Your task to perform on an android device: make emails show in primary in the gmail app Image 0: 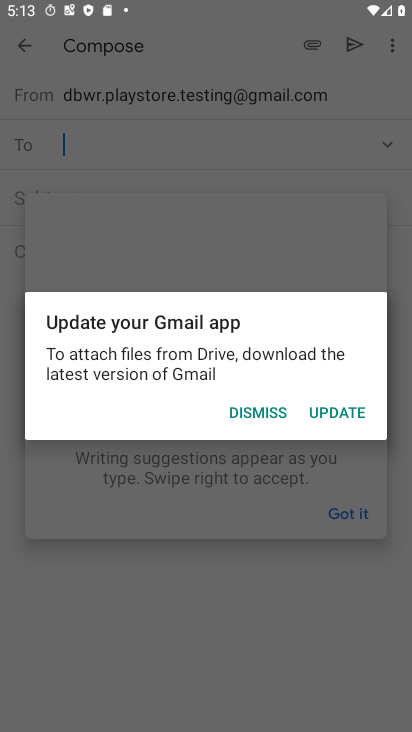
Step 0: press home button
Your task to perform on an android device: make emails show in primary in the gmail app Image 1: 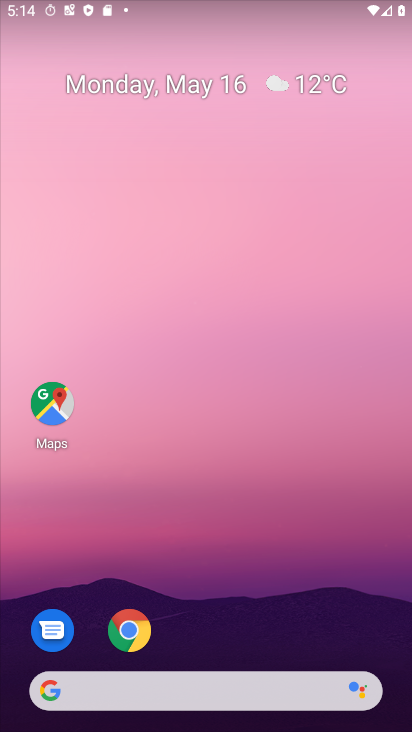
Step 1: drag from (291, 571) to (244, 61)
Your task to perform on an android device: make emails show in primary in the gmail app Image 2: 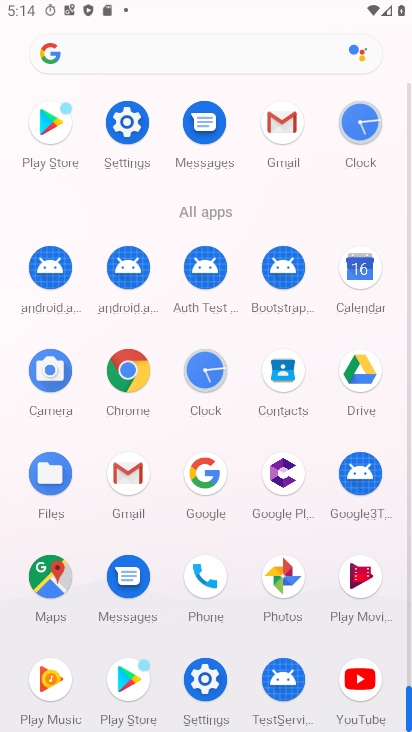
Step 2: click (280, 118)
Your task to perform on an android device: make emails show in primary in the gmail app Image 3: 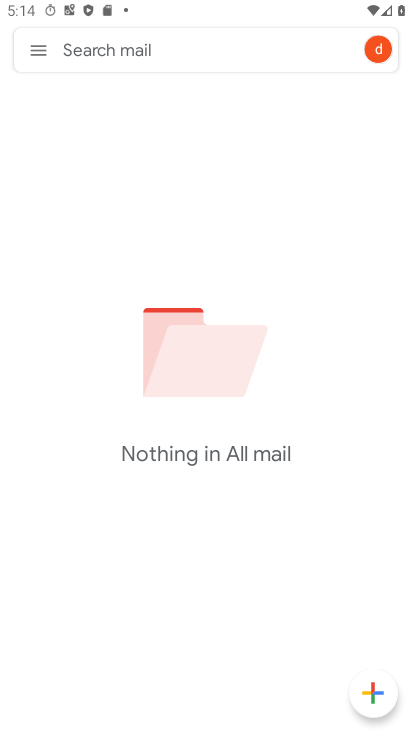
Step 3: click (33, 41)
Your task to perform on an android device: make emails show in primary in the gmail app Image 4: 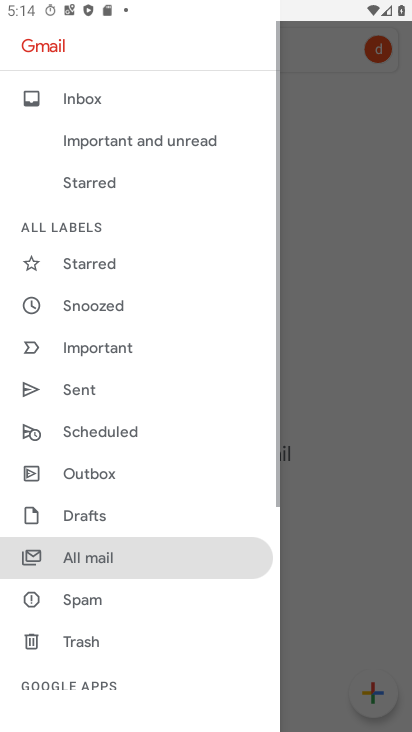
Step 4: drag from (202, 546) to (173, 575)
Your task to perform on an android device: make emails show in primary in the gmail app Image 5: 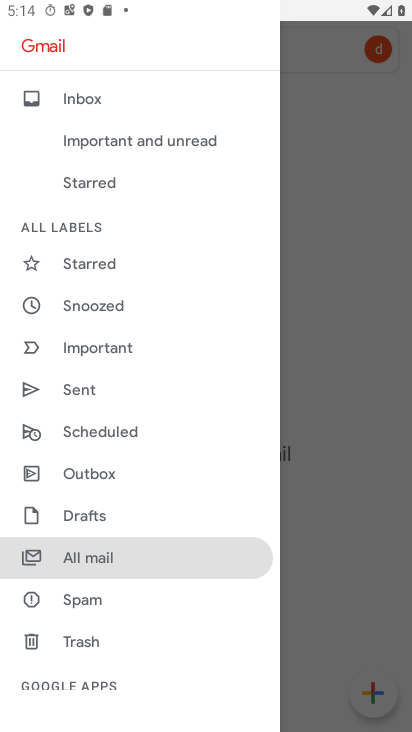
Step 5: drag from (122, 693) to (122, 176)
Your task to perform on an android device: make emails show in primary in the gmail app Image 6: 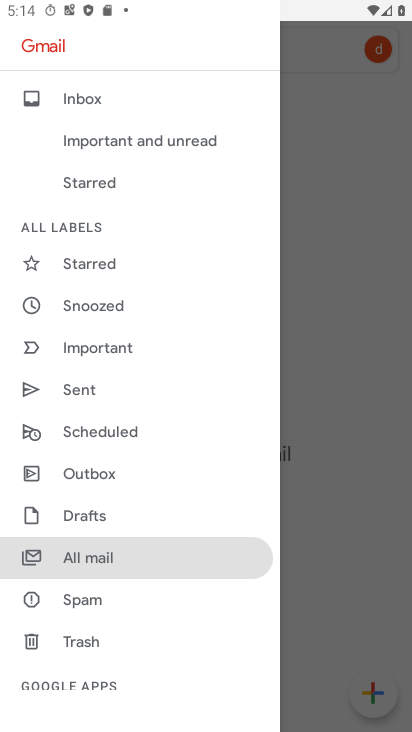
Step 6: drag from (88, 630) to (142, 140)
Your task to perform on an android device: make emails show in primary in the gmail app Image 7: 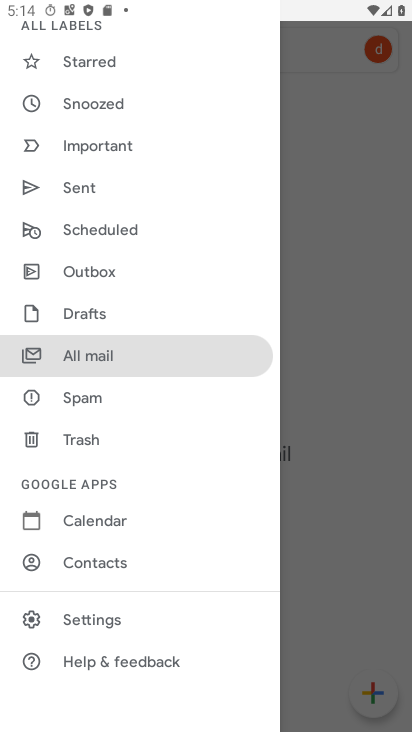
Step 7: click (76, 615)
Your task to perform on an android device: make emails show in primary in the gmail app Image 8: 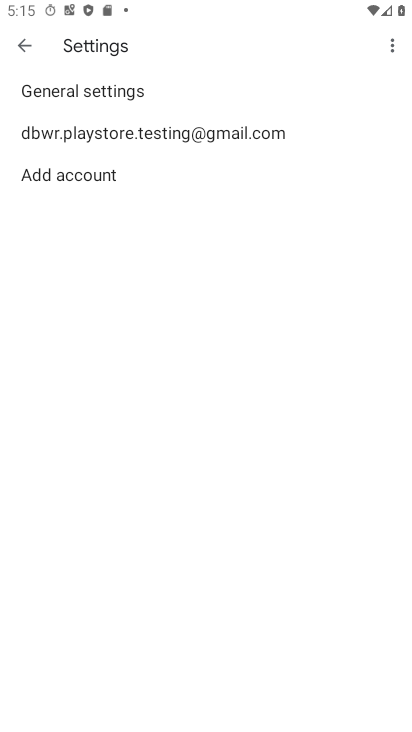
Step 8: click (103, 143)
Your task to perform on an android device: make emails show in primary in the gmail app Image 9: 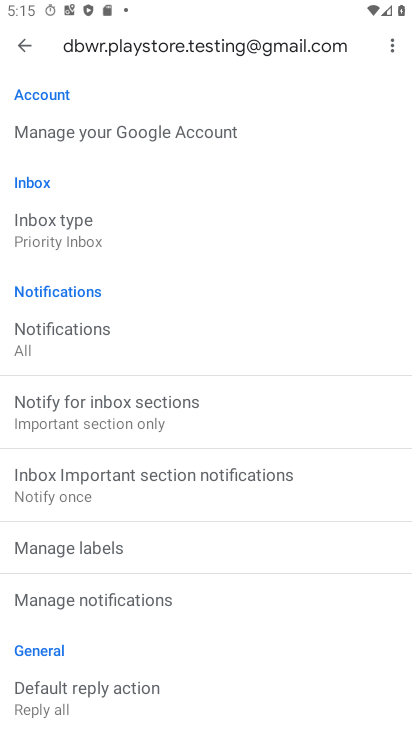
Step 9: click (91, 232)
Your task to perform on an android device: make emails show in primary in the gmail app Image 10: 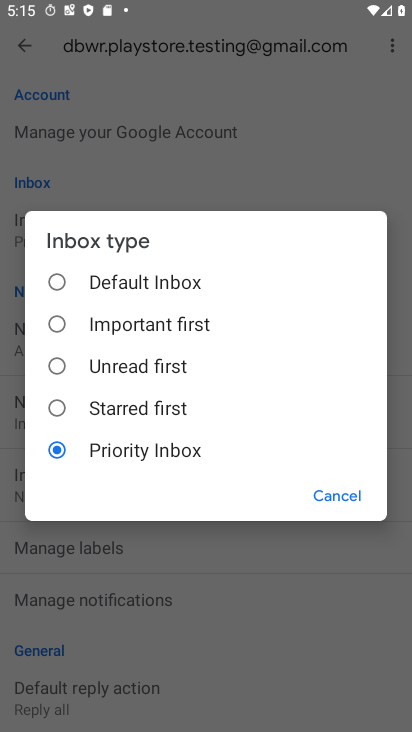
Step 10: click (153, 283)
Your task to perform on an android device: make emails show in primary in the gmail app Image 11: 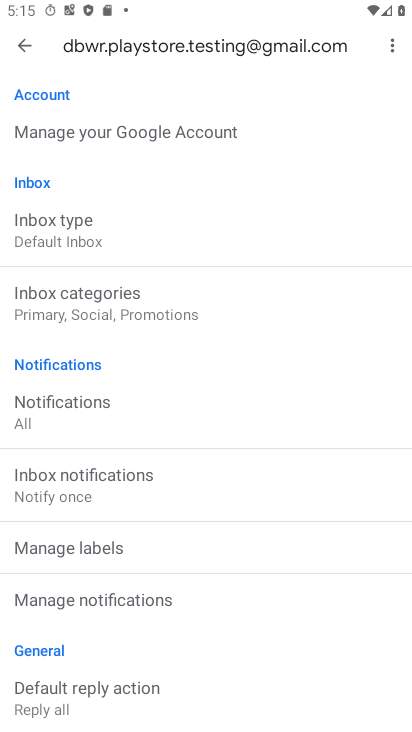
Step 11: click (91, 313)
Your task to perform on an android device: make emails show in primary in the gmail app Image 12: 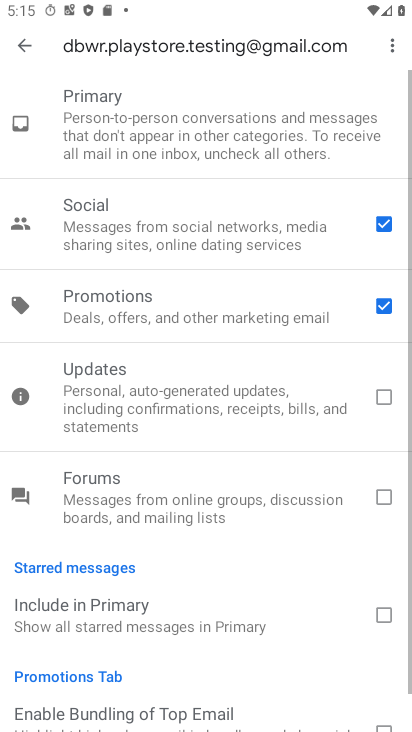
Step 12: task complete